Your task to perform on an android device: see creations saved in the google photos Image 0: 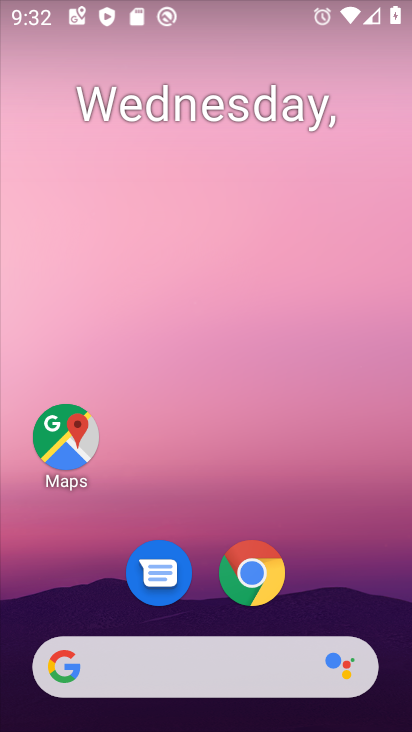
Step 0: drag from (334, 542) to (348, 89)
Your task to perform on an android device: see creations saved in the google photos Image 1: 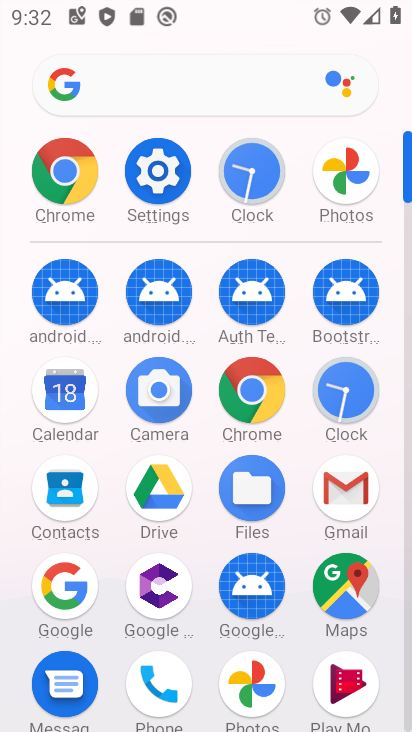
Step 1: click (263, 669)
Your task to perform on an android device: see creations saved in the google photos Image 2: 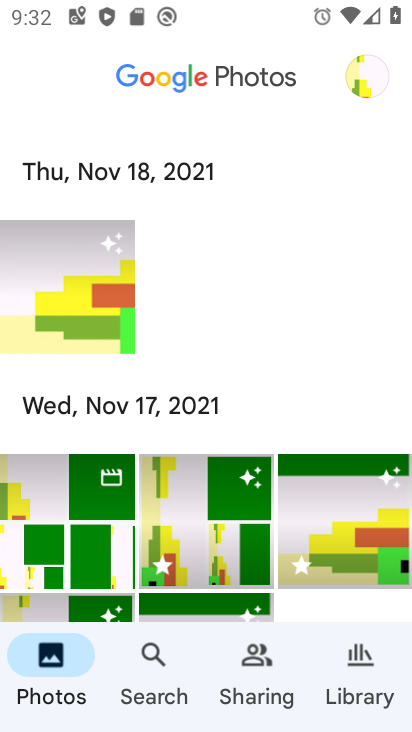
Step 2: task complete